Your task to perform on an android device: Go to location settings Image 0: 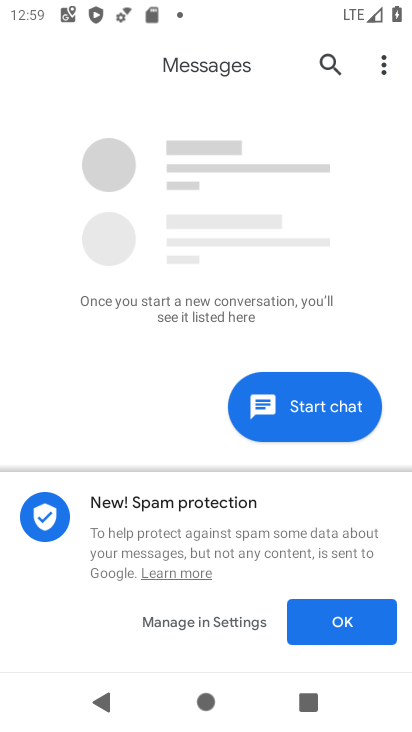
Step 0: press home button
Your task to perform on an android device: Go to location settings Image 1: 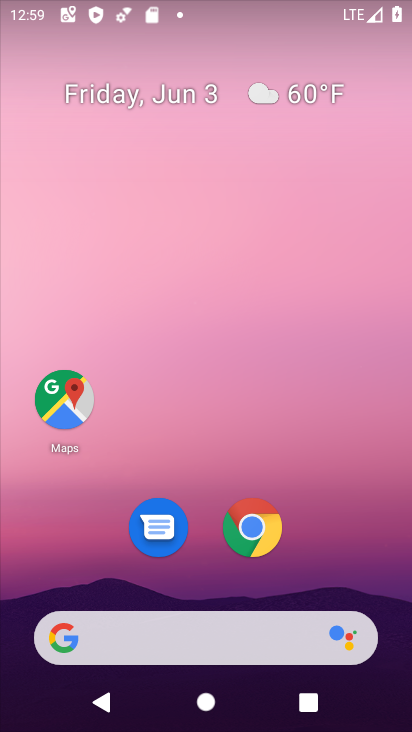
Step 1: drag from (205, 561) to (266, 31)
Your task to perform on an android device: Go to location settings Image 2: 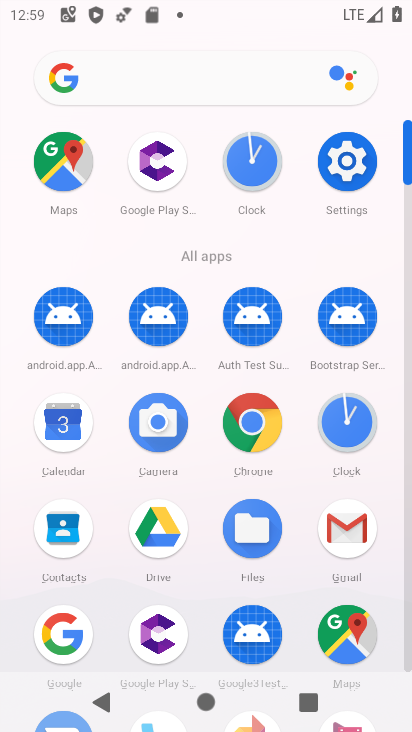
Step 2: click (345, 157)
Your task to perform on an android device: Go to location settings Image 3: 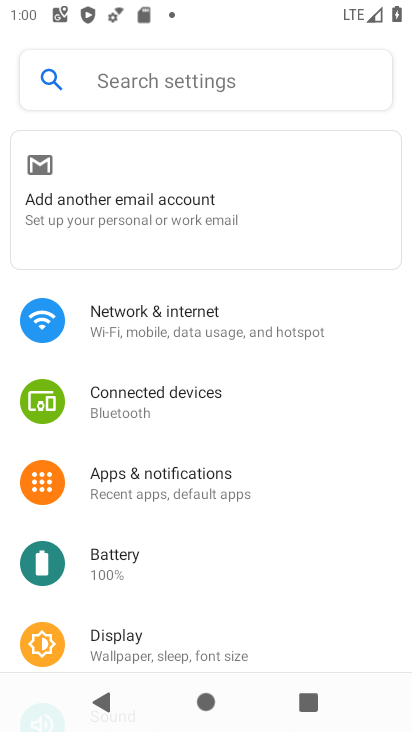
Step 3: drag from (184, 610) to (153, 172)
Your task to perform on an android device: Go to location settings Image 4: 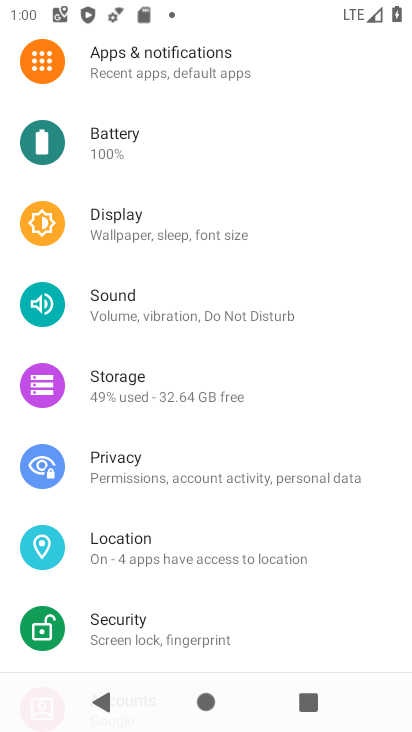
Step 4: click (186, 555)
Your task to perform on an android device: Go to location settings Image 5: 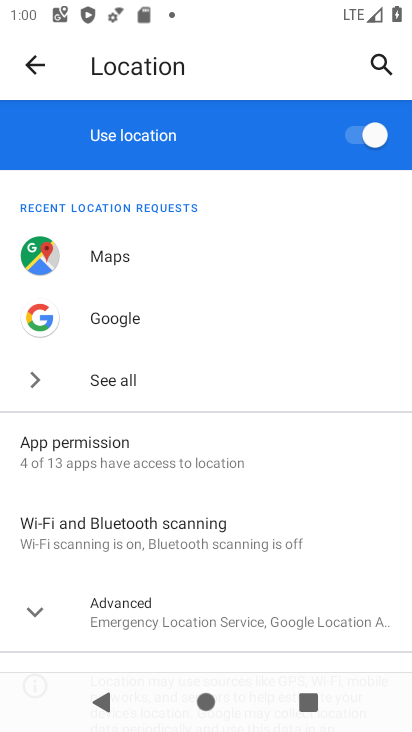
Step 5: task complete